Your task to perform on an android device: toggle pop-ups in chrome Image 0: 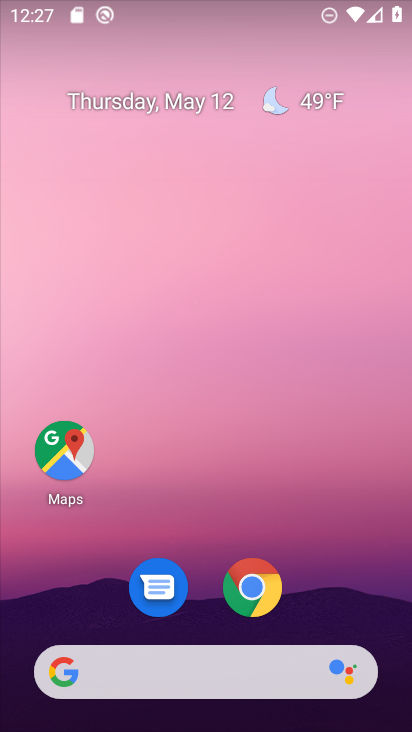
Step 0: drag from (326, 574) to (342, 229)
Your task to perform on an android device: toggle pop-ups in chrome Image 1: 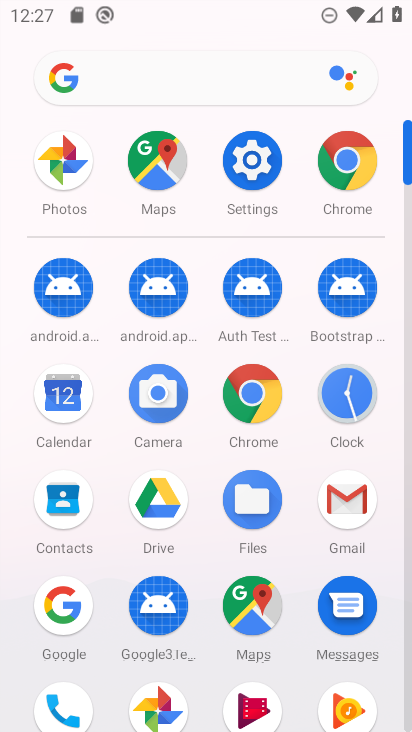
Step 1: click (340, 154)
Your task to perform on an android device: toggle pop-ups in chrome Image 2: 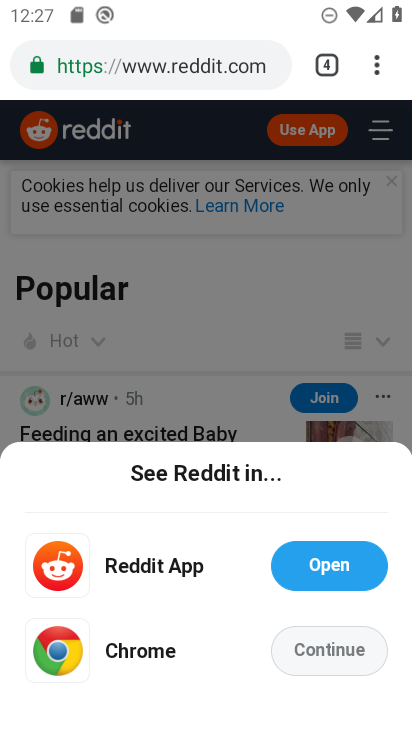
Step 2: click (361, 69)
Your task to perform on an android device: toggle pop-ups in chrome Image 3: 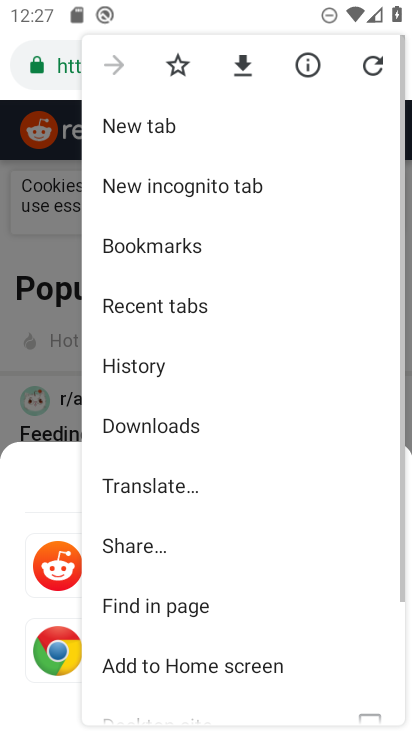
Step 3: drag from (246, 640) to (270, 171)
Your task to perform on an android device: toggle pop-ups in chrome Image 4: 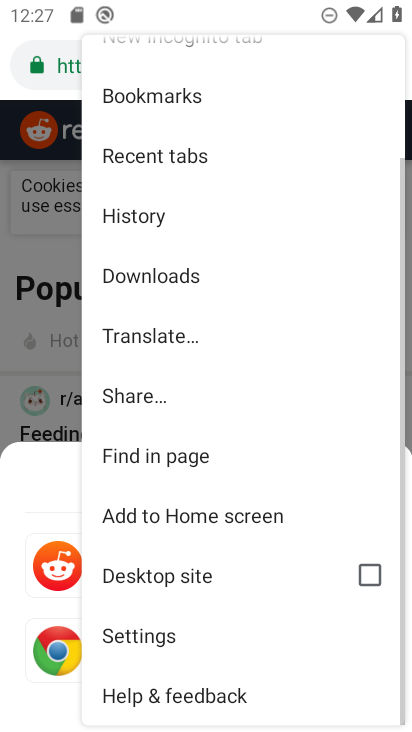
Step 4: click (157, 630)
Your task to perform on an android device: toggle pop-ups in chrome Image 5: 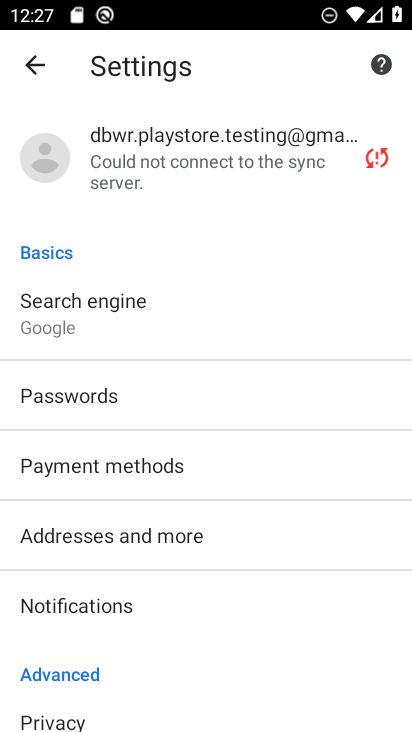
Step 5: drag from (157, 625) to (198, 252)
Your task to perform on an android device: toggle pop-ups in chrome Image 6: 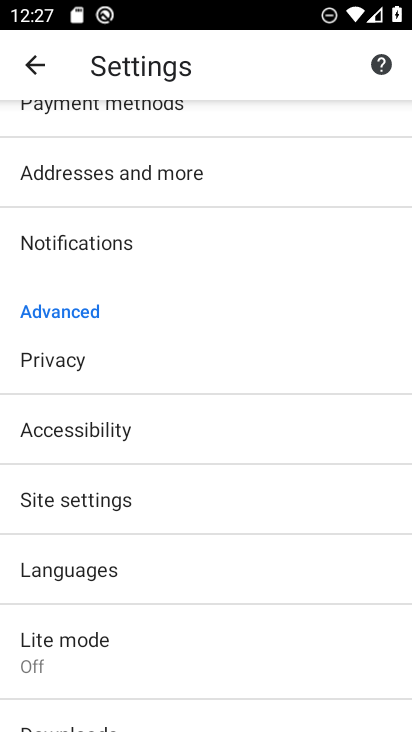
Step 6: click (122, 503)
Your task to perform on an android device: toggle pop-ups in chrome Image 7: 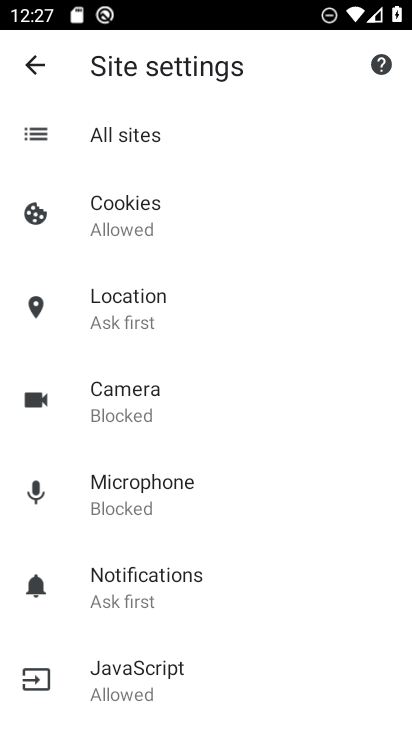
Step 7: drag from (203, 568) to (248, 183)
Your task to perform on an android device: toggle pop-ups in chrome Image 8: 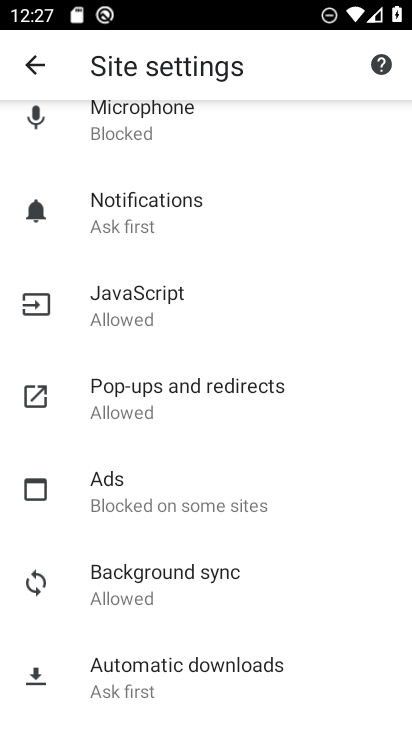
Step 8: click (148, 393)
Your task to perform on an android device: toggle pop-ups in chrome Image 9: 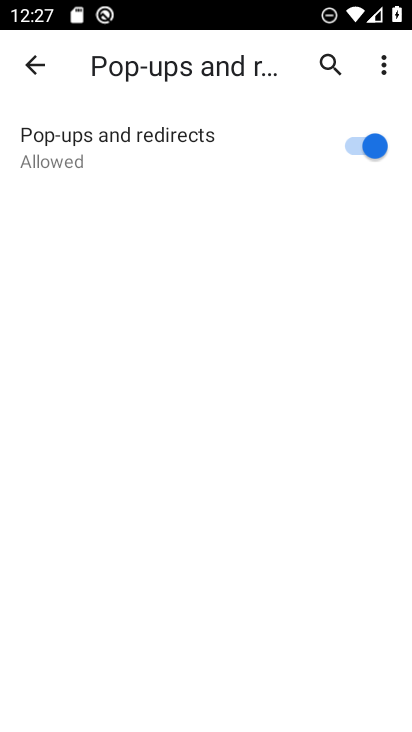
Step 9: click (364, 131)
Your task to perform on an android device: toggle pop-ups in chrome Image 10: 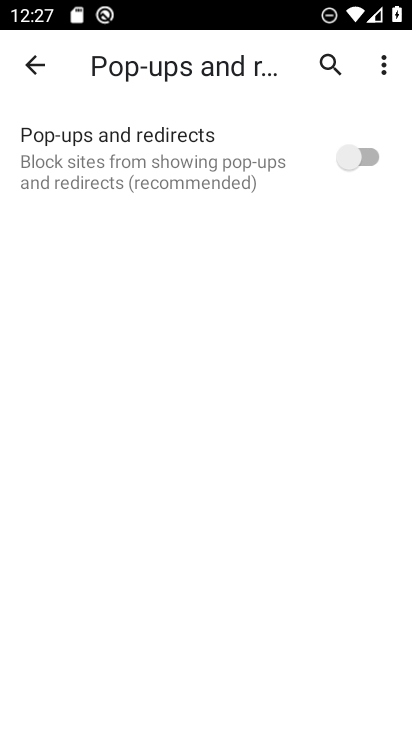
Step 10: task complete